Your task to perform on an android device: uninstall "PlayWell" Image 0: 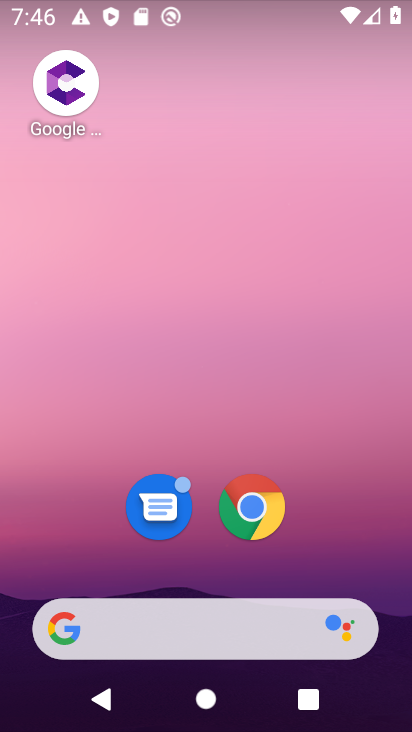
Step 0: drag from (330, 556) to (287, 14)
Your task to perform on an android device: uninstall "PlayWell" Image 1: 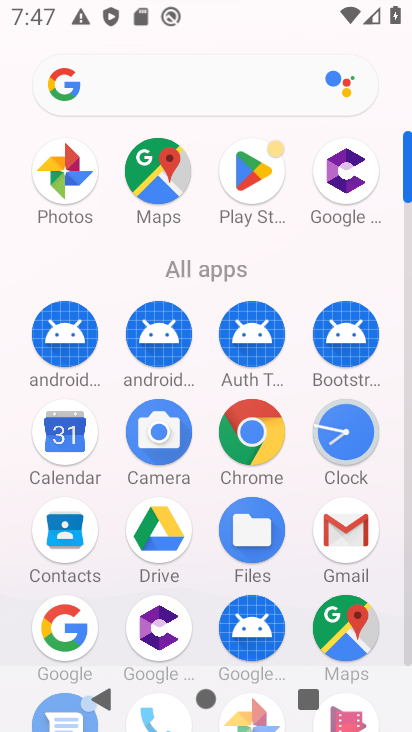
Step 1: click (409, 653)
Your task to perform on an android device: uninstall "PlayWell" Image 2: 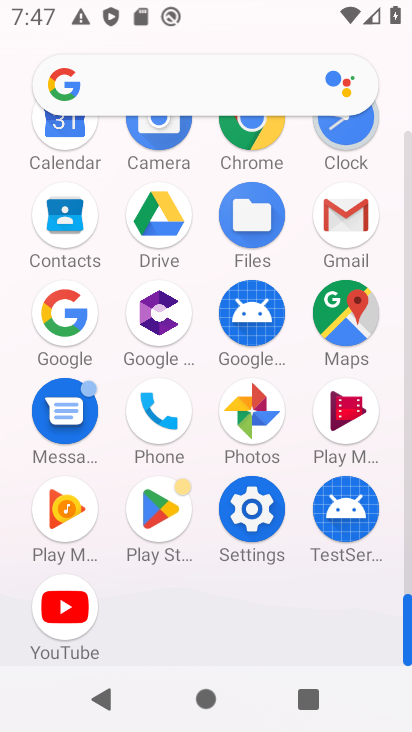
Step 2: click (179, 487)
Your task to perform on an android device: uninstall "PlayWell" Image 3: 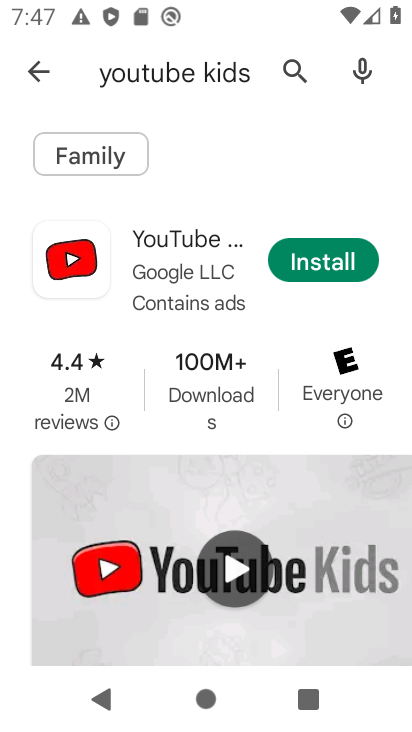
Step 3: click (300, 76)
Your task to perform on an android device: uninstall "PlayWell" Image 4: 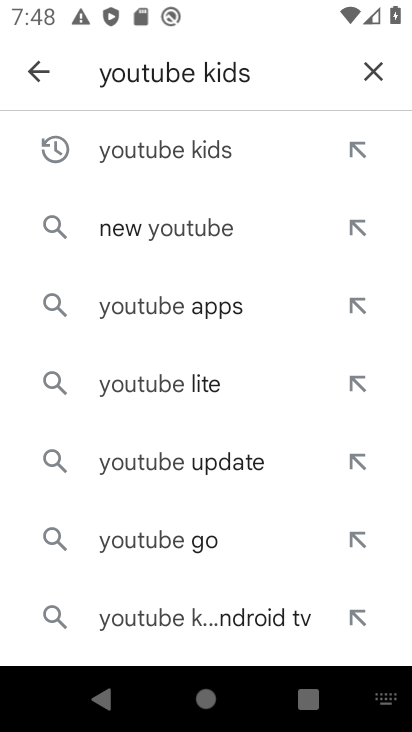
Step 4: click (366, 79)
Your task to perform on an android device: uninstall "PlayWell" Image 5: 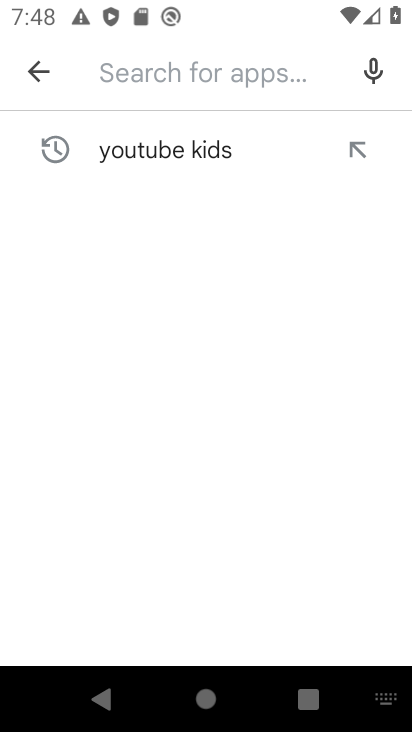
Step 5: type "PlayWell"
Your task to perform on an android device: uninstall "PlayWell" Image 6: 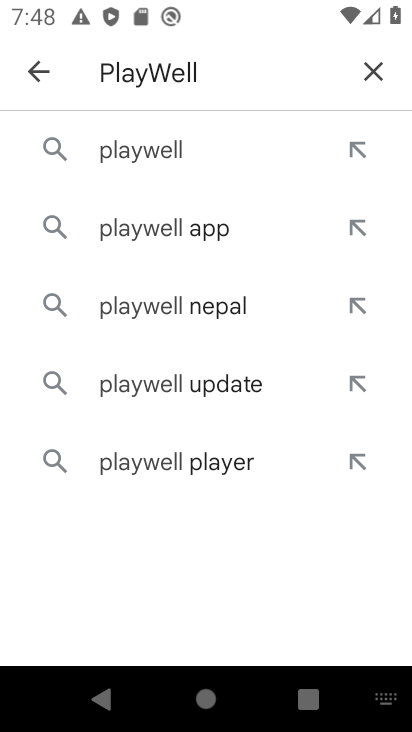
Step 6: click (144, 144)
Your task to perform on an android device: uninstall "PlayWell" Image 7: 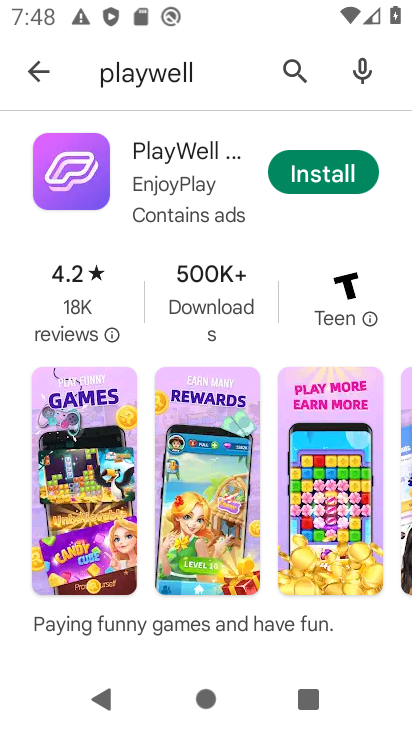
Step 7: task complete